Your task to perform on an android device: manage bookmarks in the chrome app Image 0: 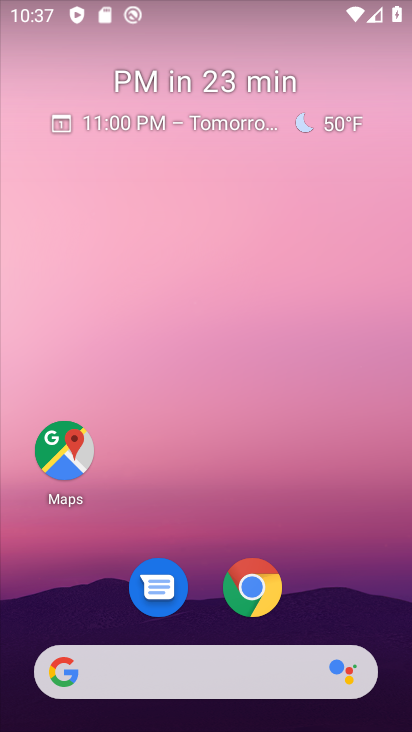
Step 0: drag from (209, 649) to (203, 19)
Your task to perform on an android device: manage bookmarks in the chrome app Image 1: 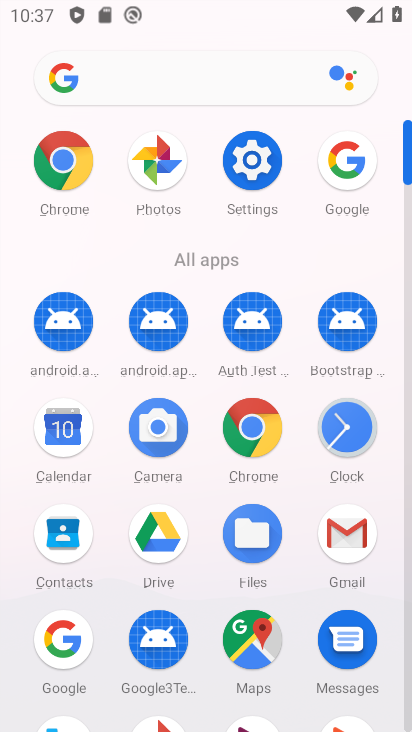
Step 1: click (265, 435)
Your task to perform on an android device: manage bookmarks in the chrome app Image 2: 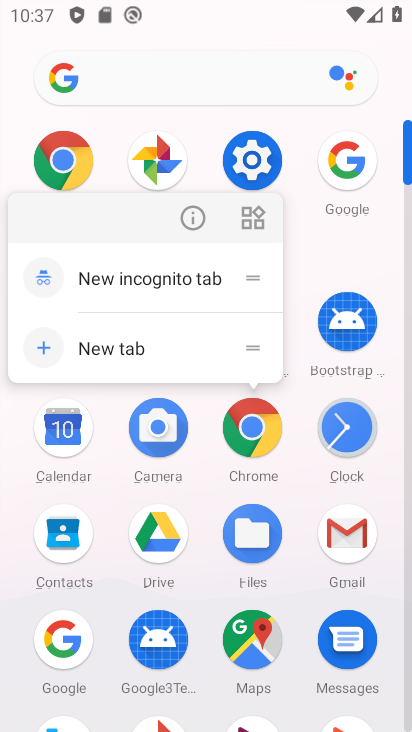
Step 2: click (257, 433)
Your task to perform on an android device: manage bookmarks in the chrome app Image 3: 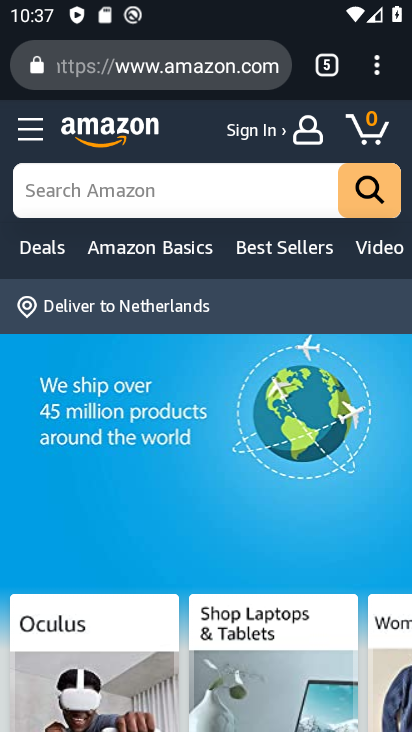
Step 3: click (368, 68)
Your task to perform on an android device: manage bookmarks in the chrome app Image 4: 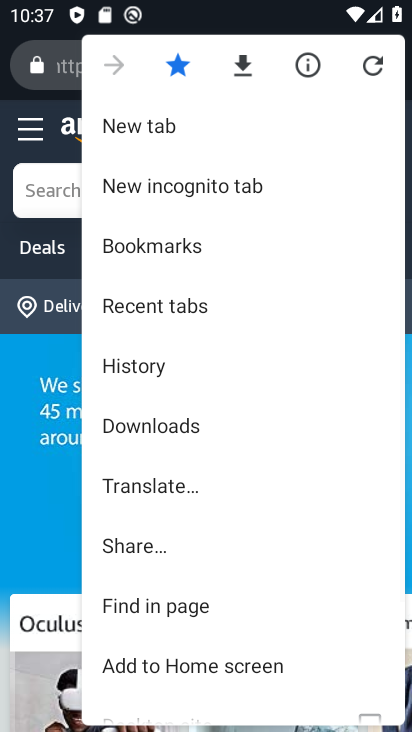
Step 4: click (192, 234)
Your task to perform on an android device: manage bookmarks in the chrome app Image 5: 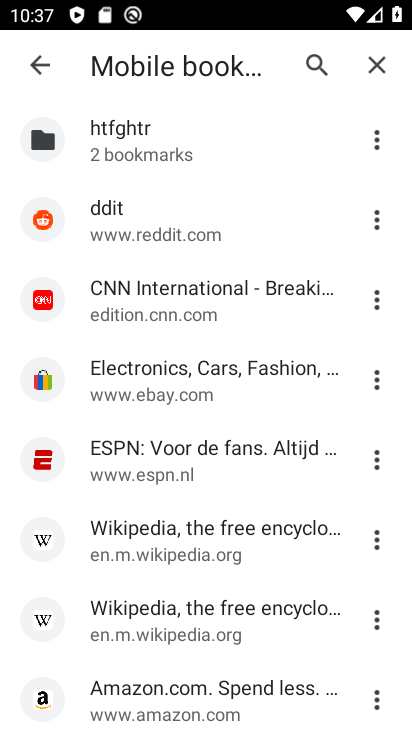
Step 5: click (370, 220)
Your task to perform on an android device: manage bookmarks in the chrome app Image 6: 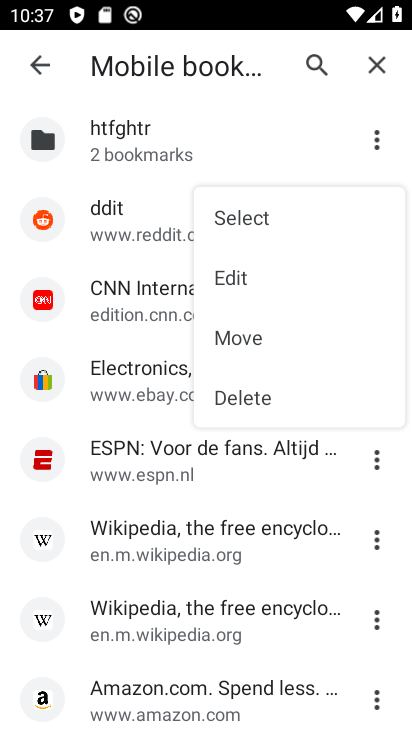
Step 6: click (242, 271)
Your task to perform on an android device: manage bookmarks in the chrome app Image 7: 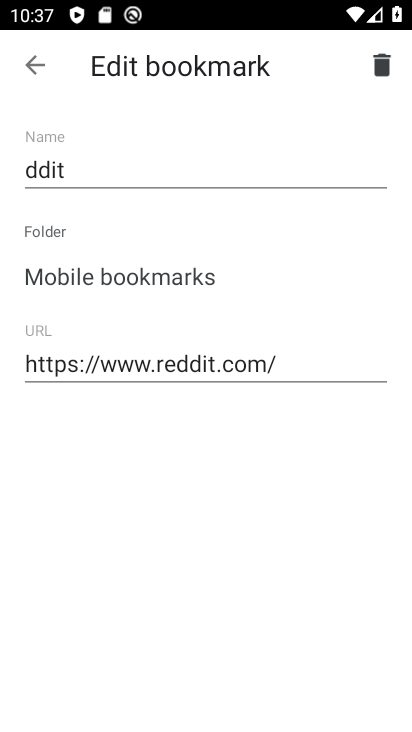
Step 7: click (380, 73)
Your task to perform on an android device: manage bookmarks in the chrome app Image 8: 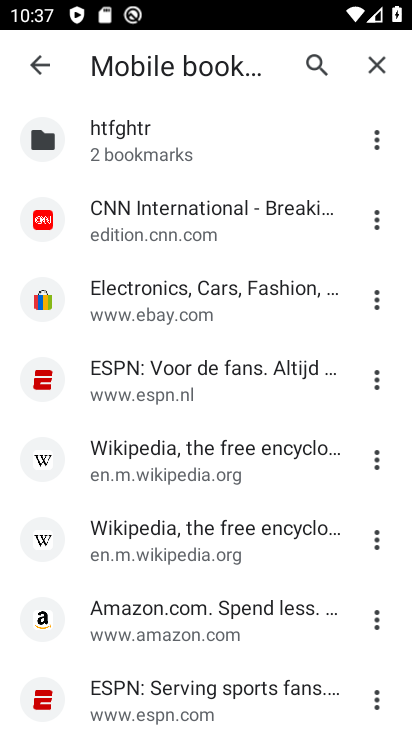
Step 8: task complete